Your task to perform on an android device: find snoozed emails in the gmail app Image 0: 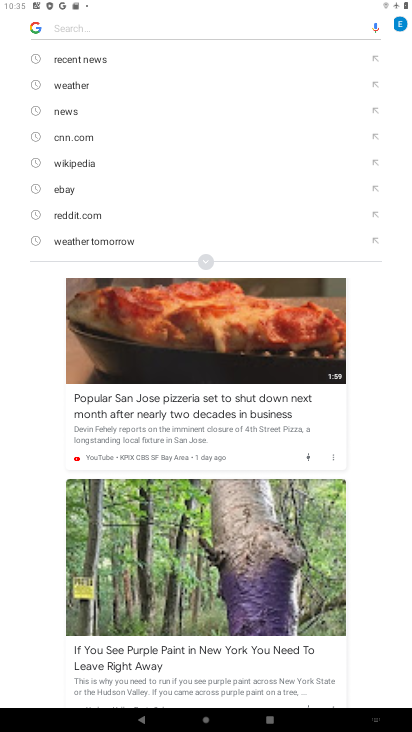
Step 0: press home button
Your task to perform on an android device: find snoozed emails in the gmail app Image 1: 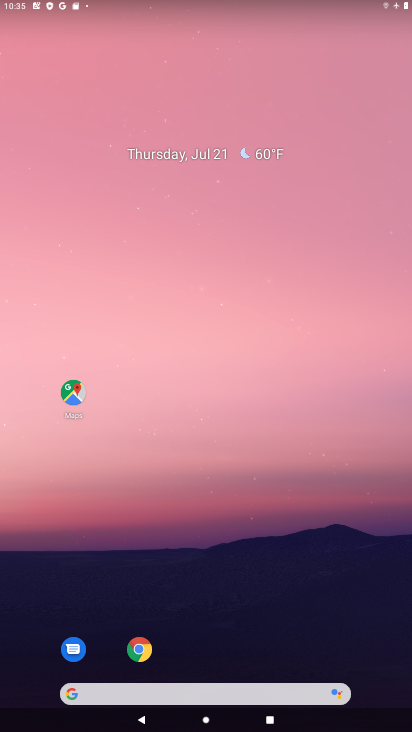
Step 1: drag from (198, 696) to (283, 220)
Your task to perform on an android device: find snoozed emails in the gmail app Image 2: 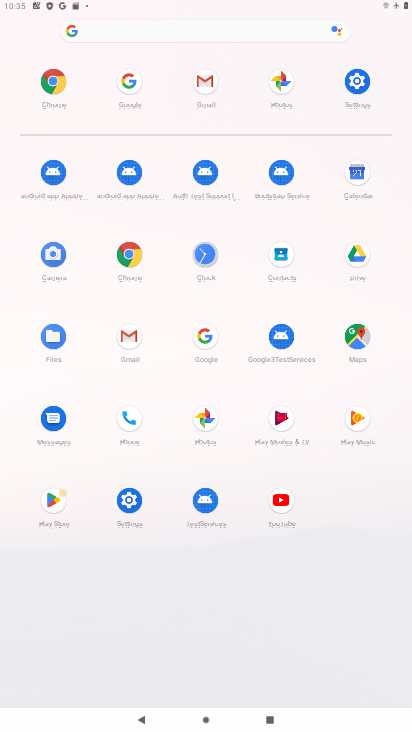
Step 2: click (204, 80)
Your task to perform on an android device: find snoozed emails in the gmail app Image 3: 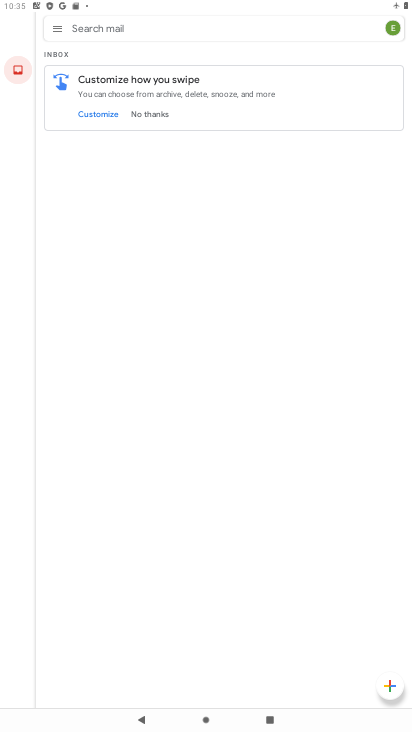
Step 3: click (57, 28)
Your task to perform on an android device: find snoozed emails in the gmail app Image 4: 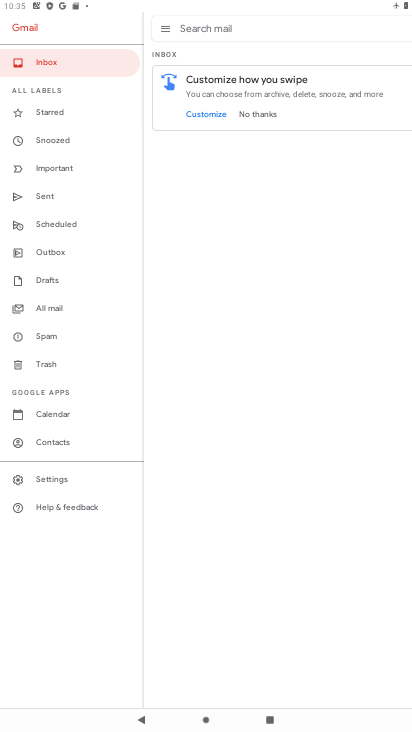
Step 4: click (56, 136)
Your task to perform on an android device: find snoozed emails in the gmail app Image 5: 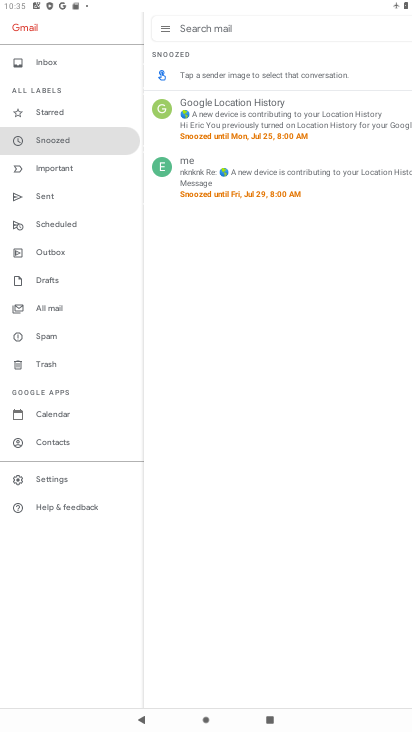
Step 5: click (253, 138)
Your task to perform on an android device: find snoozed emails in the gmail app Image 6: 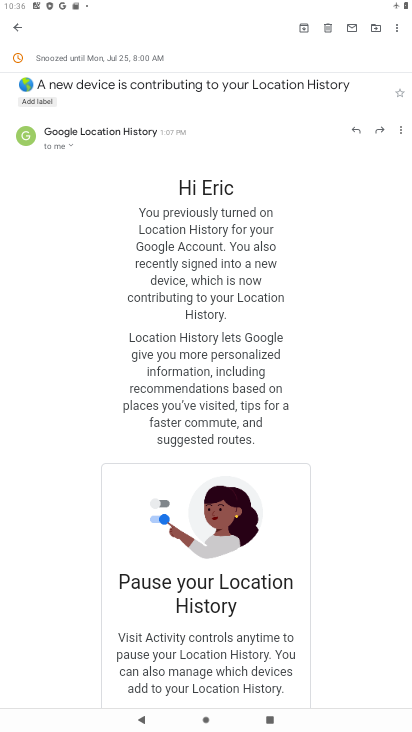
Step 6: task complete